Your task to perform on an android device: manage bookmarks in the chrome app Image 0: 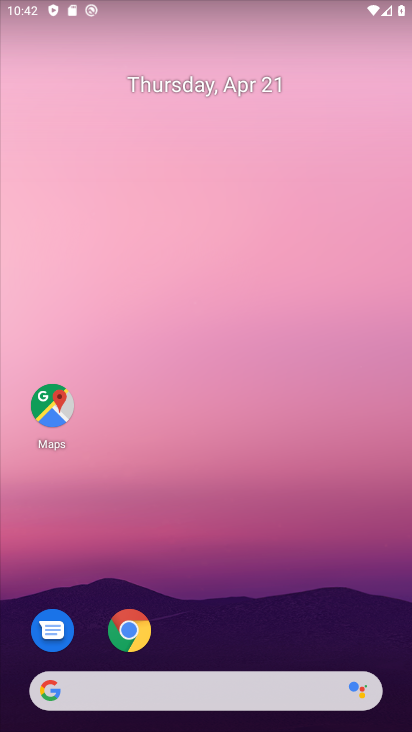
Step 0: drag from (310, 546) to (302, 122)
Your task to perform on an android device: manage bookmarks in the chrome app Image 1: 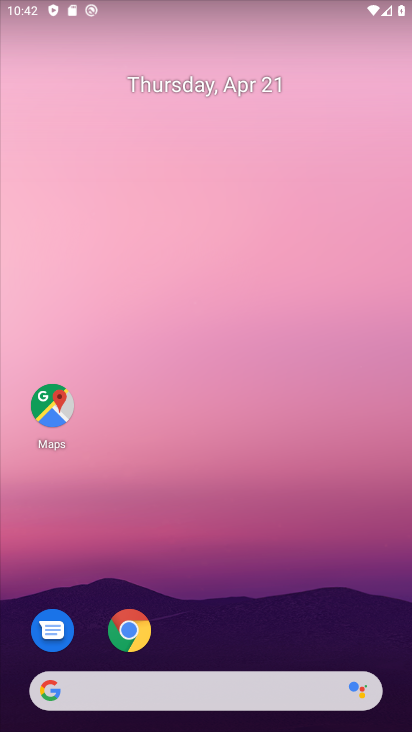
Step 1: click (315, 73)
Your task to perform on an android device: manage bookmarks in the chrome app Image 2: 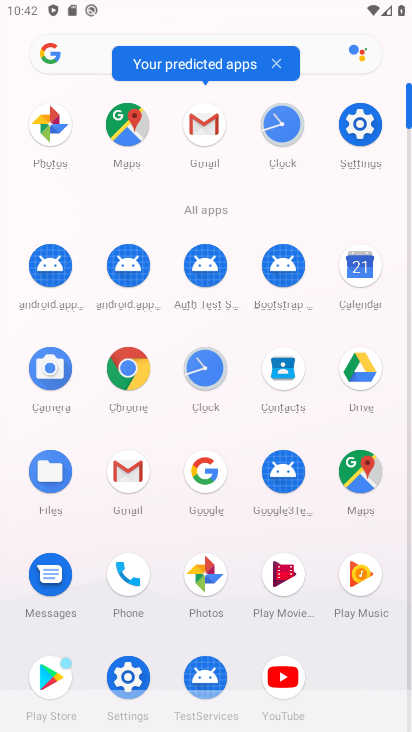
Step 2: click (134, 369)
Your task to perform on an android device: manage bookmarks in the chrome app Image 3: 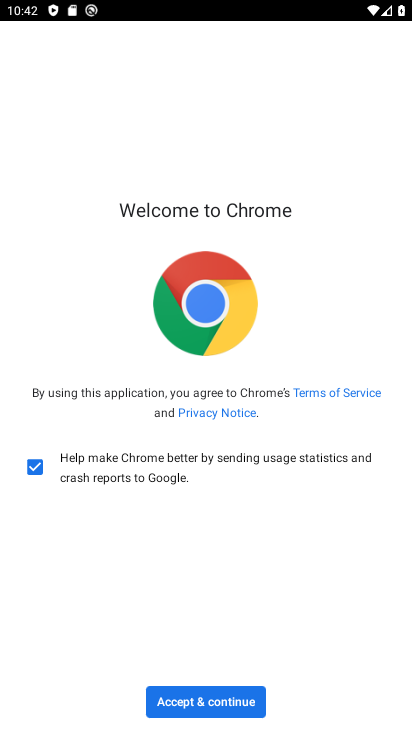
Step 3: click (210, 701)
Your task to perform on an android device: manage bookmarks in the chrome app Image 4: 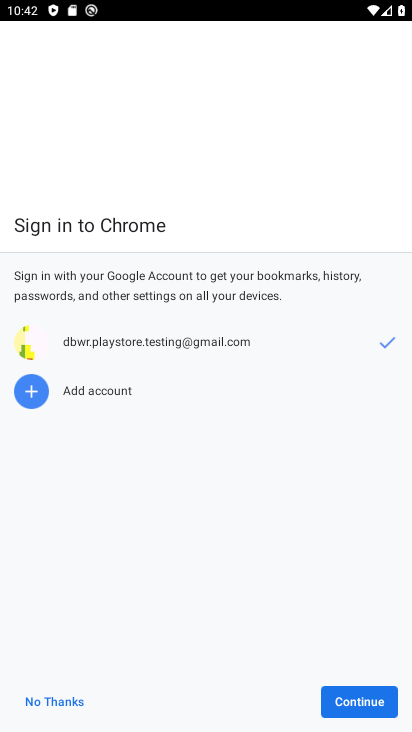
Step 4: click (386, 696)
Your task to perform on an android device: manage bookmarks in the chrome app Image 5: 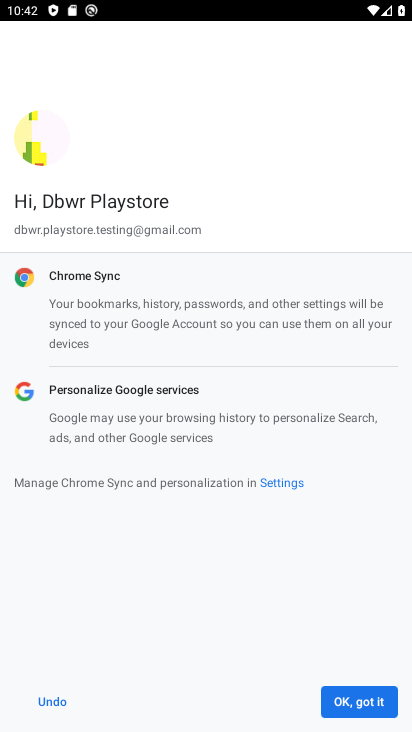
Step 5: click (361, 696)
Your task to perform on an android device: manage bookmarks in the chrome app Image 6: 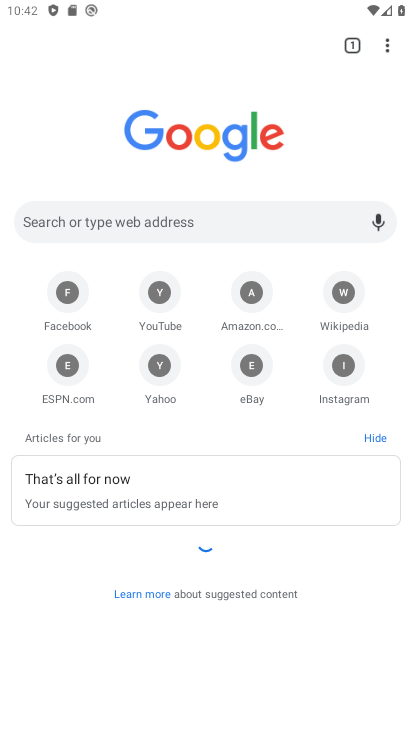
Step 6: task complete